Your task to perform on an android device: Add "razer blade" to the cart on bestbuy, then select checkout. Image 0: 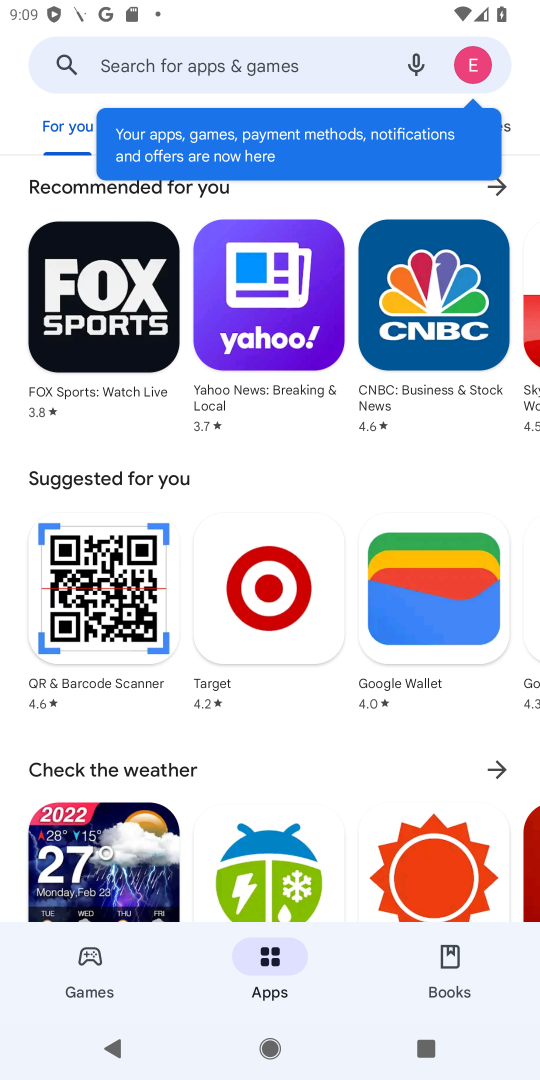
Step 0: press home button
Your task to perform on an android device: Add "razer blade" to the cart on bestbuy, then select checkout. Image 1: 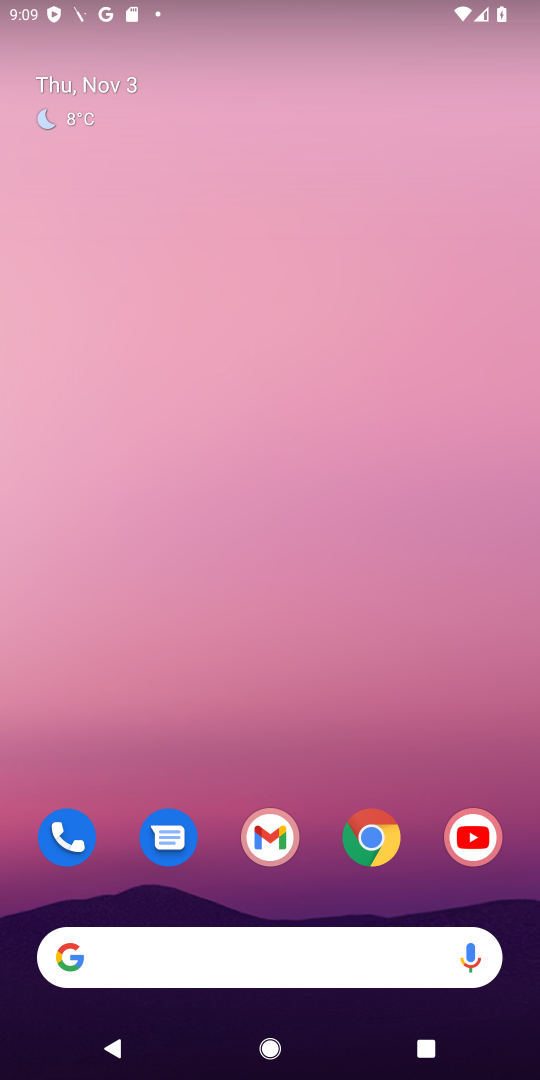
Step 1: click (372, 838)
Your task to perform on an android device: Add "razer blade" to the cart on bestbuy, then select checkout. Image 2: 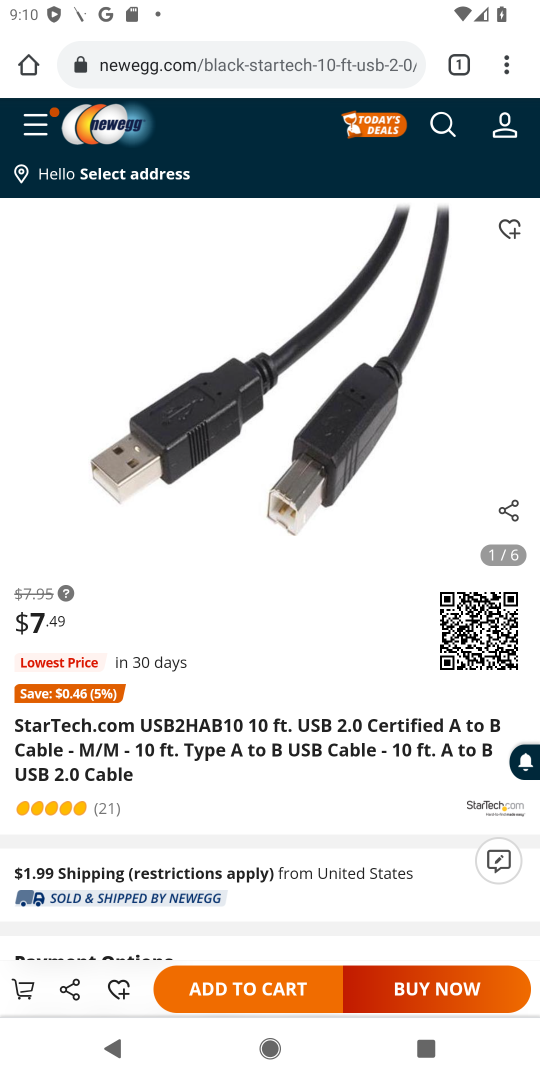
Step 2: click (289, 61)
Your task to perform on an android device: Add "razer blade" to the cart on bestbuy, then select checkout. Image 3: 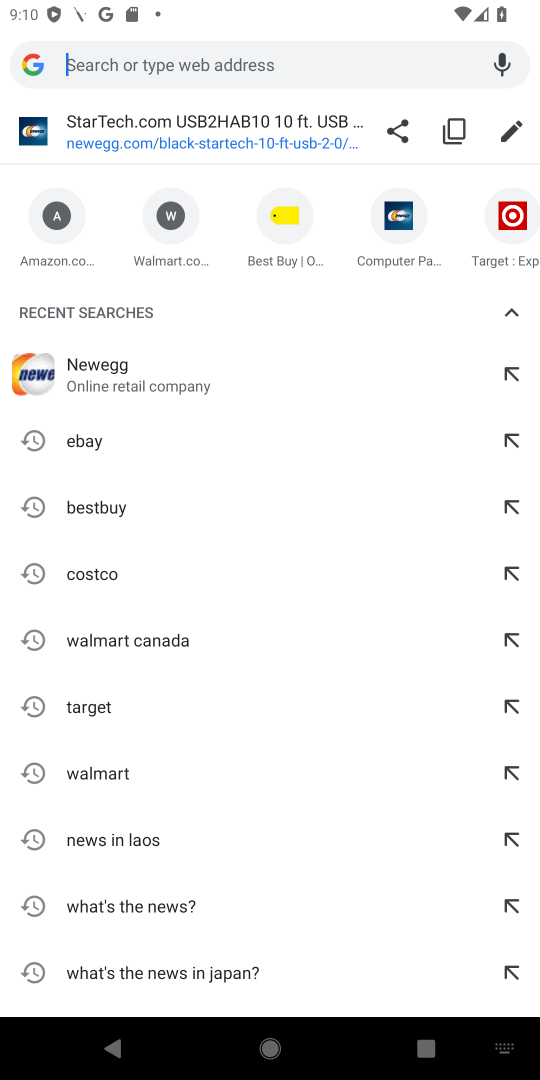
Step 3: click (74, 508)
Your task to perform on an android device: Add "razer blade" to the cart on bestbuy, then select checkout. Image 4: 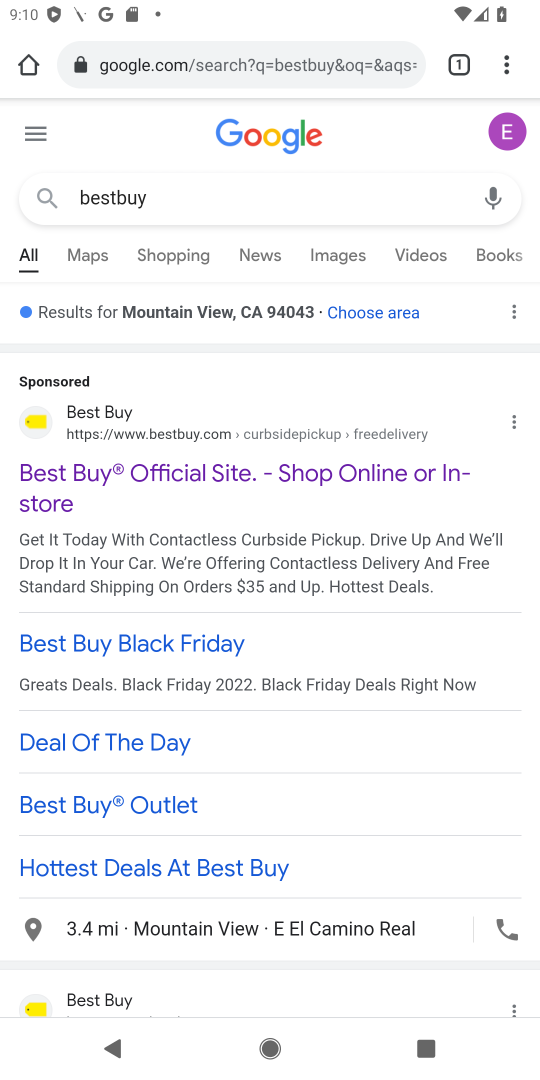
Step 4: click (106, 465)
Your task to perform on an android device: Add "razer blade" to the cart on bestbuy, then select checkout. Image 5: 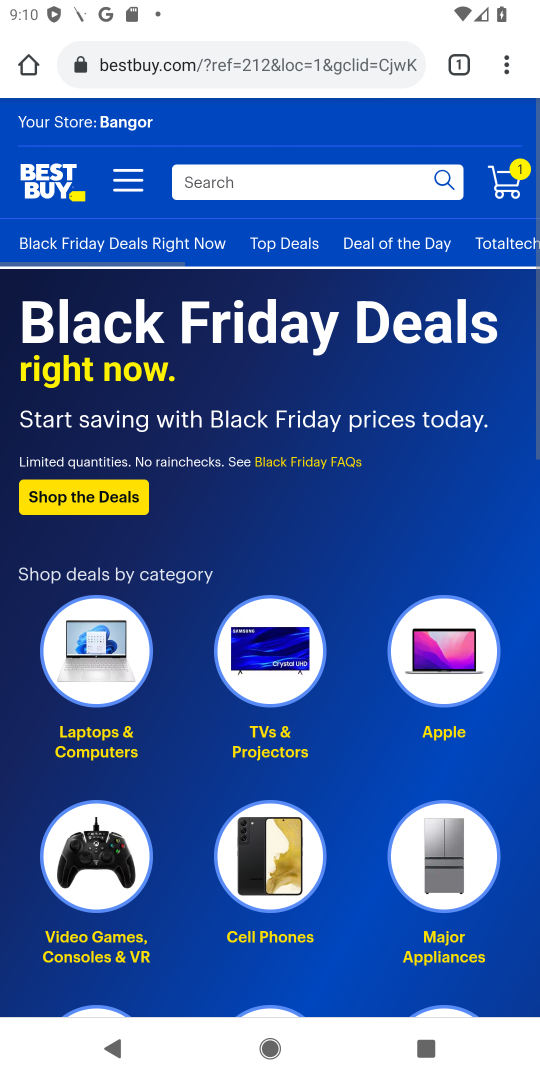
Step 5: click (66, 471)
Your task to perform on an android device: Add "razer blade" to the cart on bestbuy, then select checkout. Image 6: 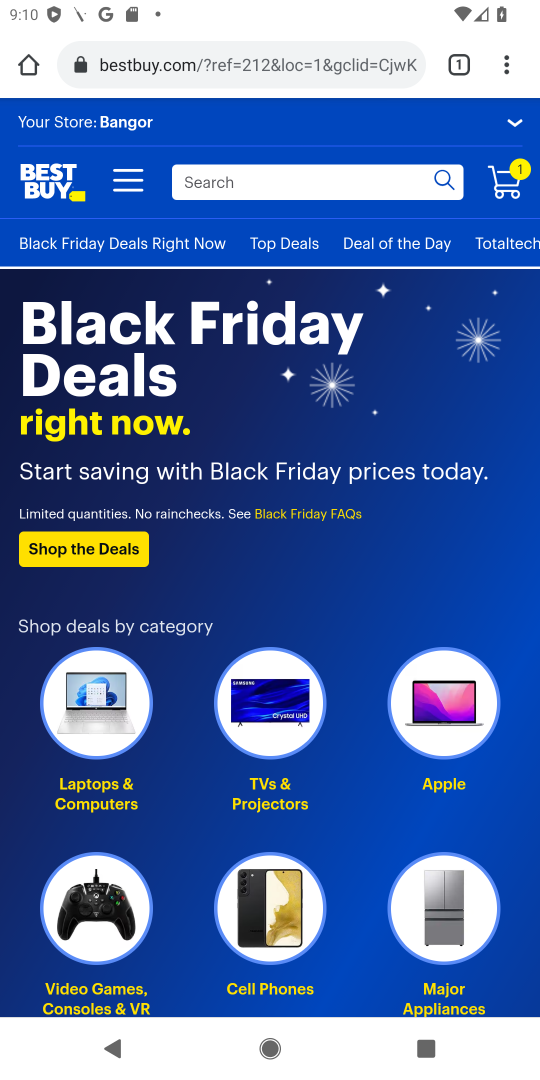
Step 6: click (290, 178)
Your task to perform on an android device: Add "razer blade" to the cart on bestbuy, then select checkout. Image 7: 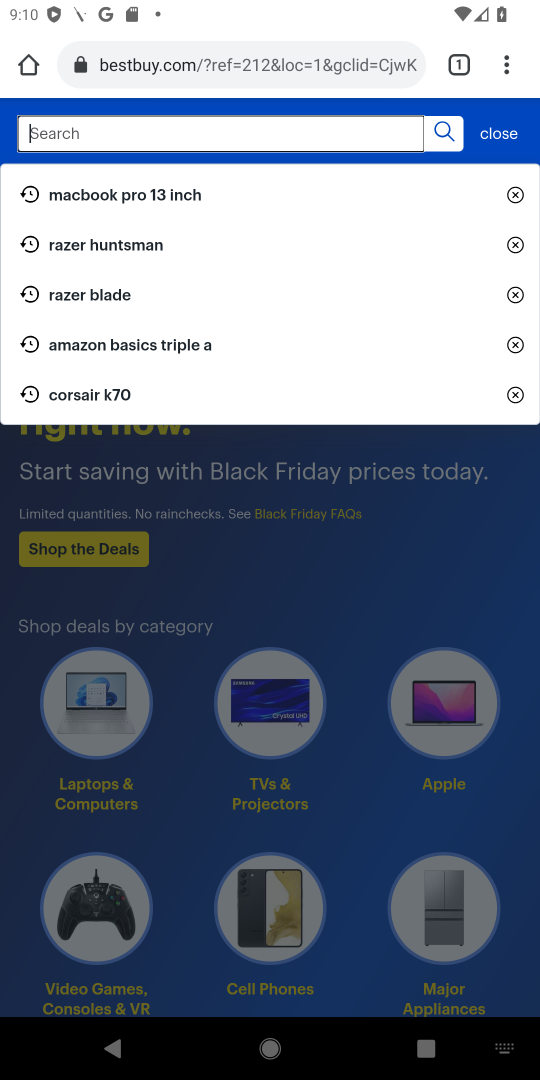
Step 7: type "razer blade"
Your task to perform on an android device: Add "razer blade" to the cart on bestbuy, then select checkout. Image 8: 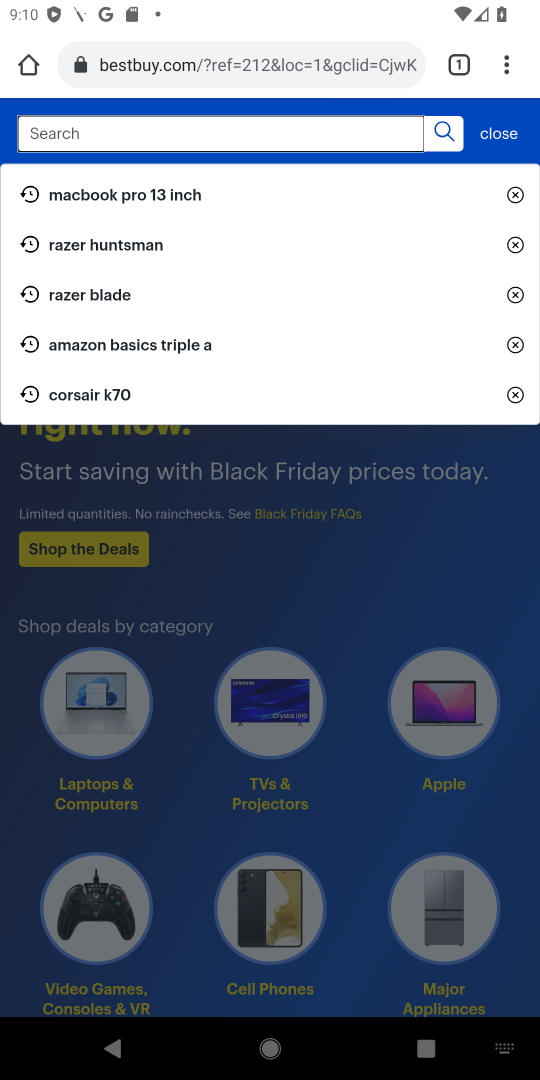
Step 8: press enter
Your task to perform on an android device: Add "razer blade" to the cart on bestbuy, then select checkout. Image 9: 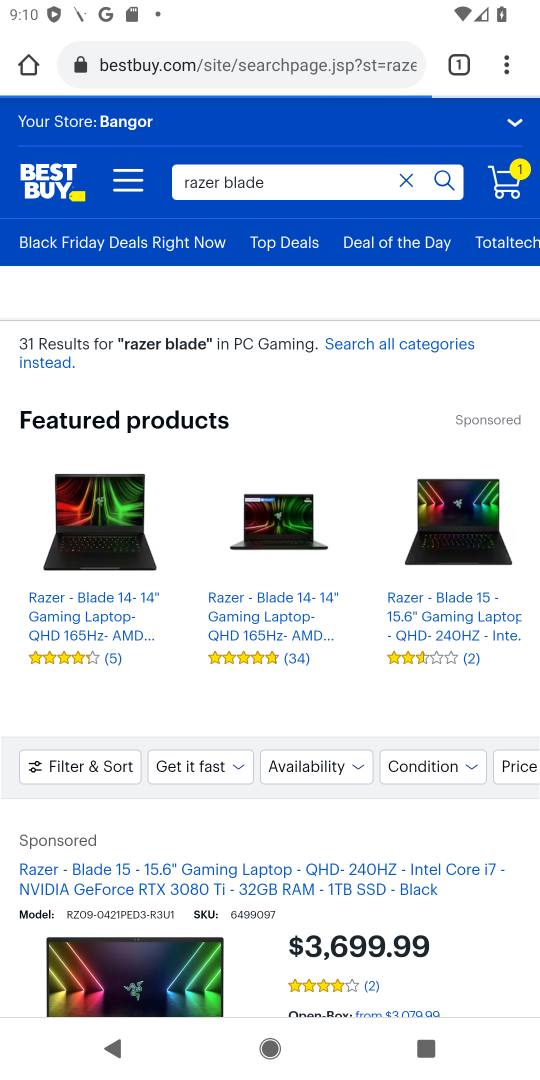
Step 9: drag from (214, 987) to (363, 648)
Your task to perform on an android device: Add "razer blade" to the cart on bestbuy, then select checkout. Image 10: 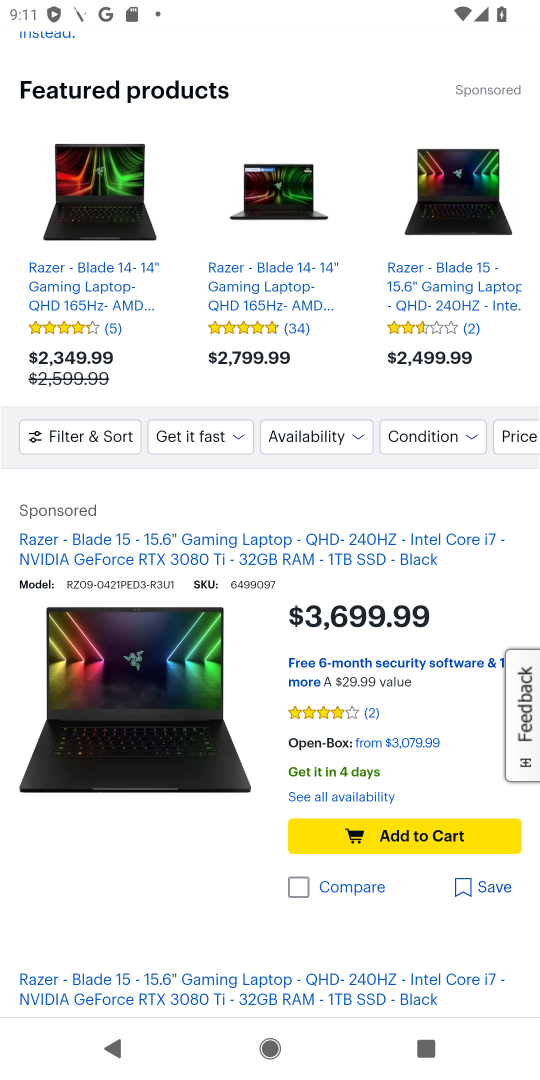
Step 10: click (423, 831)
Your task to perform on an android device: Add "razer blade" to the cart on bestbuy, then select checkout. Image 11: 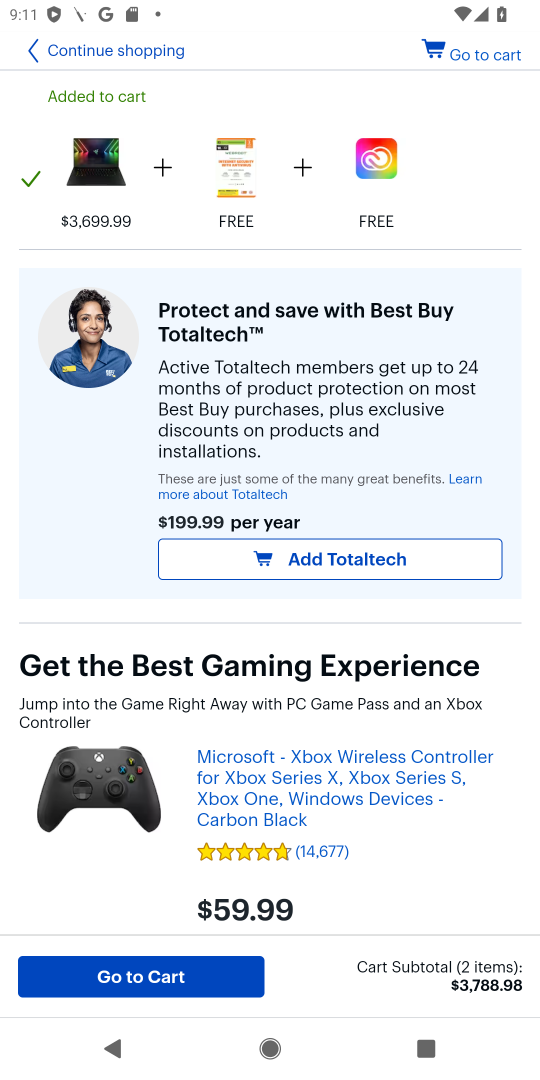
Step 11: click (486, 55)
Your task to perform on an android device: Add "razer blade" to the cart on bestbuy, then select checkout. Image 12: 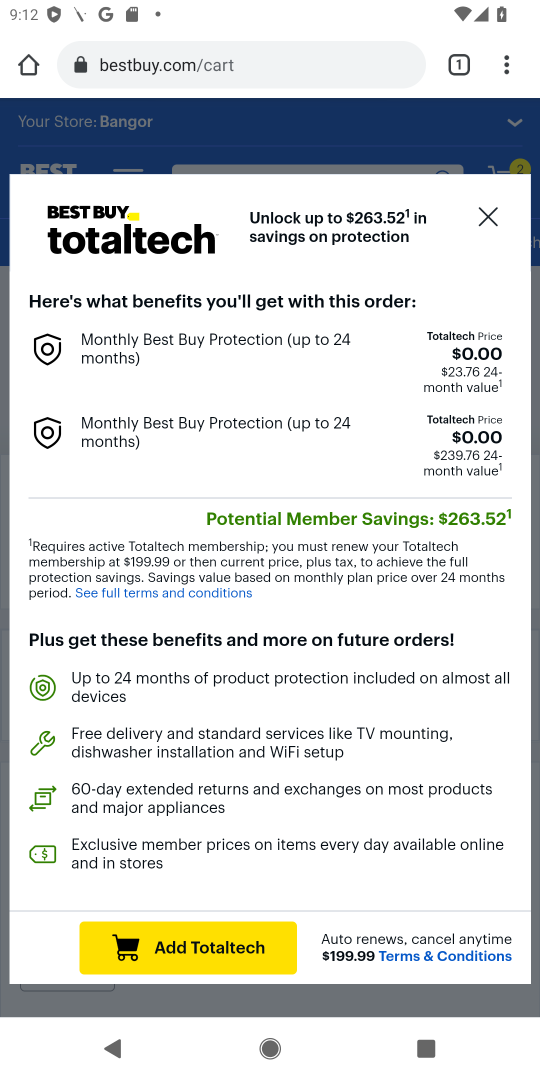
Step 12: click (489, 214)
Your task to perform on an android device: Add "razer blade" to the cart on bestbuy, then select checkout. Image 13: 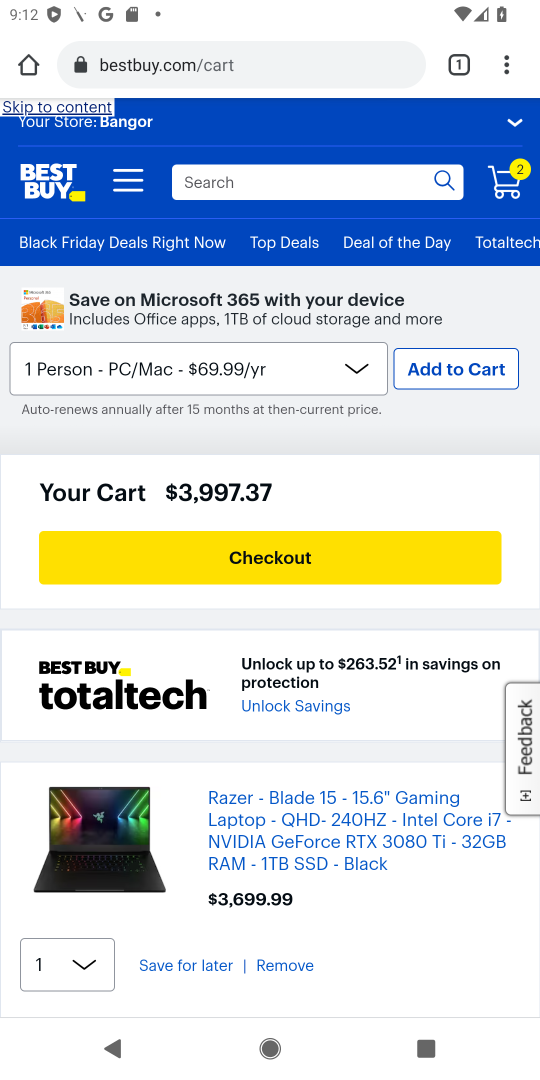
Step 13: click (287, 560)
Your task to perform on an android device: Add "razer blade" to the cart on bestbuy, then select checkout. Image 14: 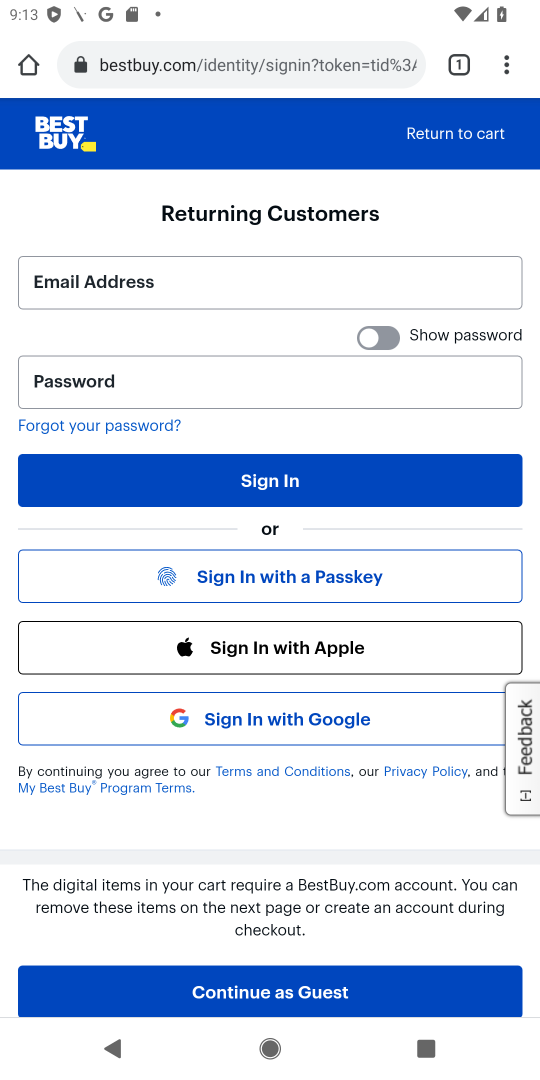
Step 14: task complete